Your task to perform on an android device: Show me popular games on the Play Store Image 0: 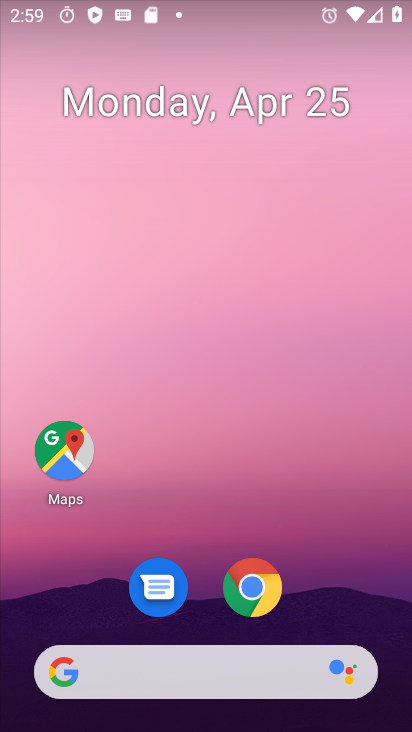
Step 0: drag from (334, 541) to (299, 189)
Your task to perform on an android device: Show me popular games on the Play Store Image 1: 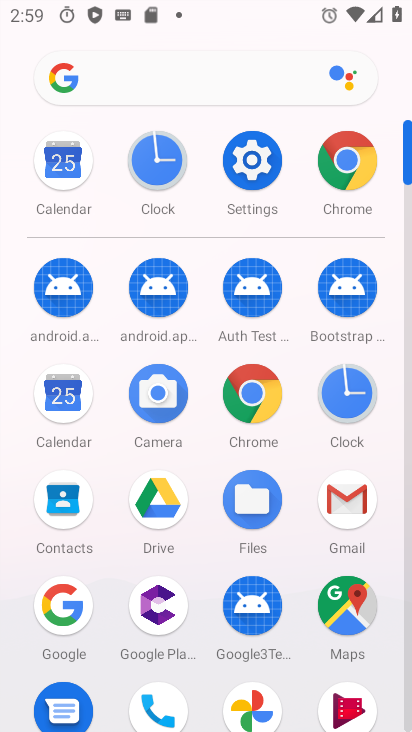
Step 1: click (304, 209)
Your task to perform on an android device: Show me popular games on the Play Store Image 2: 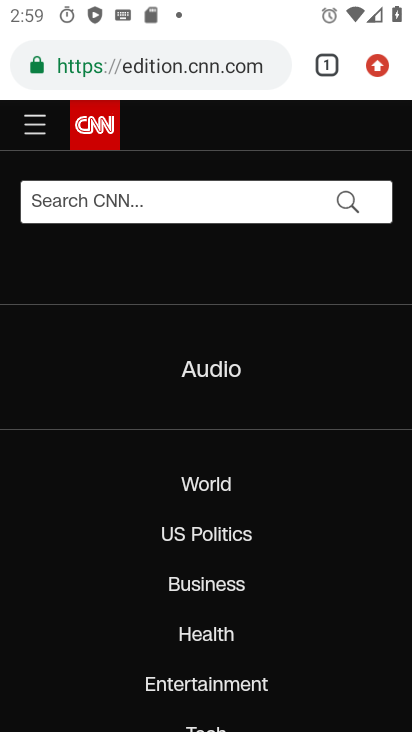
Step 2: press home button
Your task to perform on an android device: Show me popular games on the Play Store Image 3: 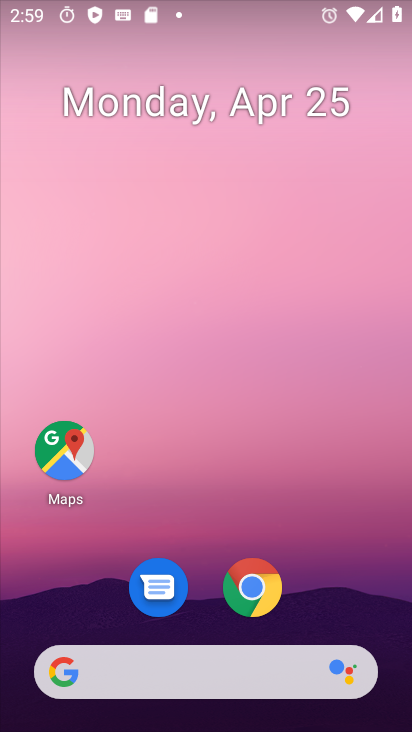
Step 3: drag from (354, 443) to (326, 51)
Your task to perform on an android device: Show me popular games on the Play Store Image 4: 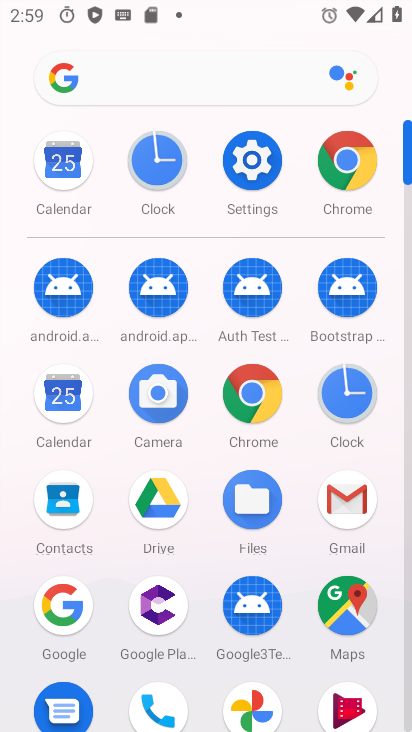
Step 4: drag from (302, 531) to (328, 113)
Your task to perform on an android device: Show me popular games on the Play Store Image 5: 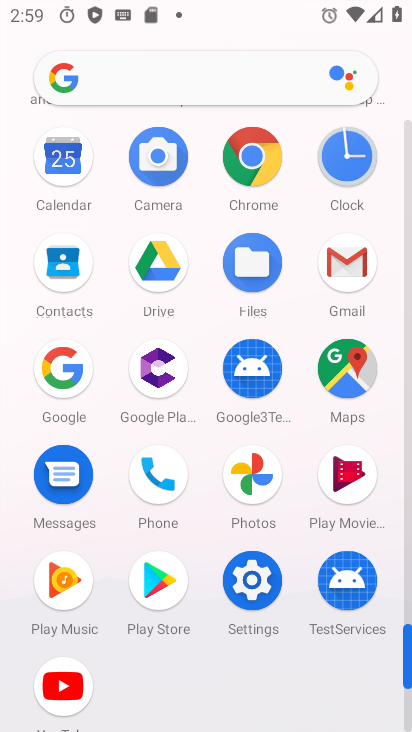
Step 5: click (158, 587)
Your task to perform on an android device: Show me popular games on the Play Store Image 6: 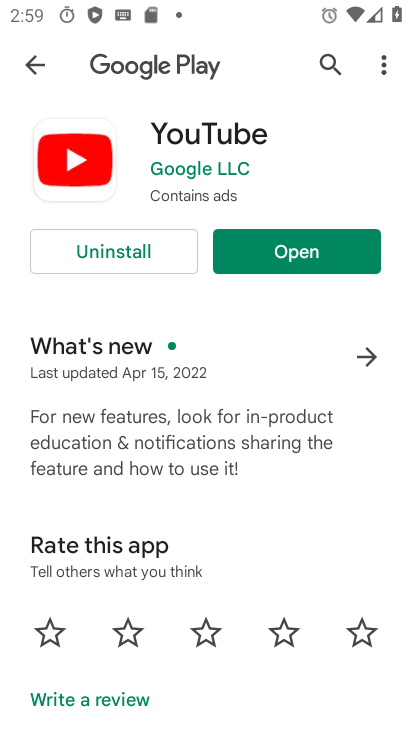
Step 6: click (42, 59)
Your task to perform on an android device: Show me popular games on the Play Store Image 7: 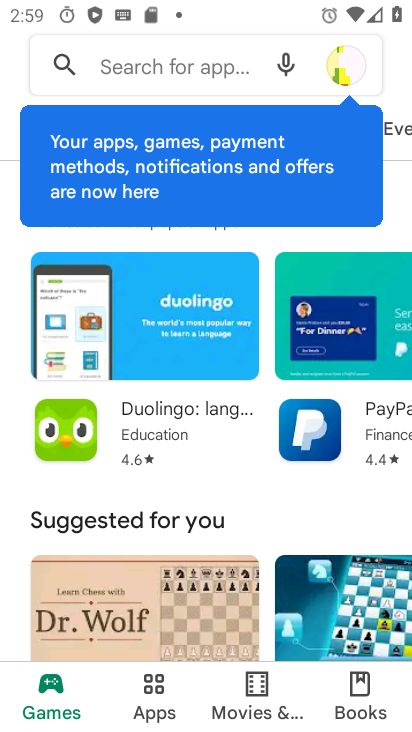
Step 7: click (391, 190)
Your task to perform on an android device: Show me popular games on the Play Store Image 8: 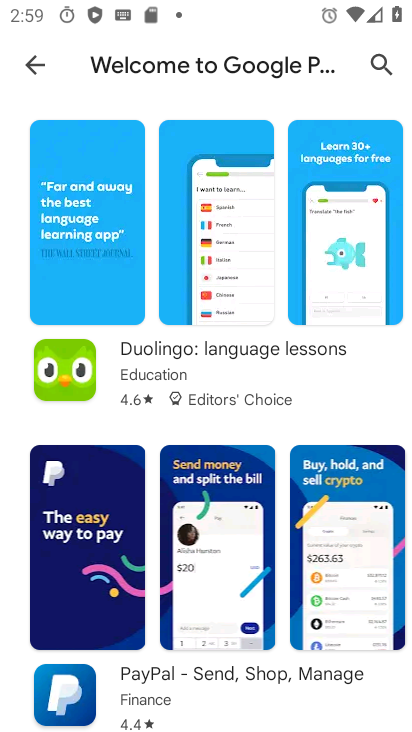
Step 8: drag from (37, 55) to (246, 45)
Your task to perform on an android device: Show me popular games on the Play Store Image 9: 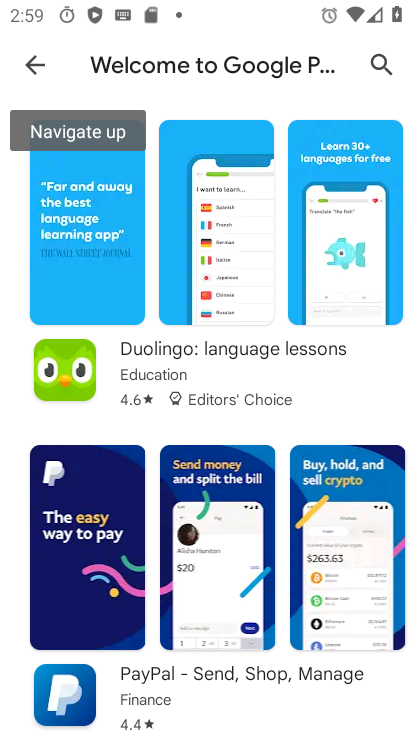
Step 9: click (31, 72)
Your task to perform on an android device: Show me popular games on the Play Store Image 10: 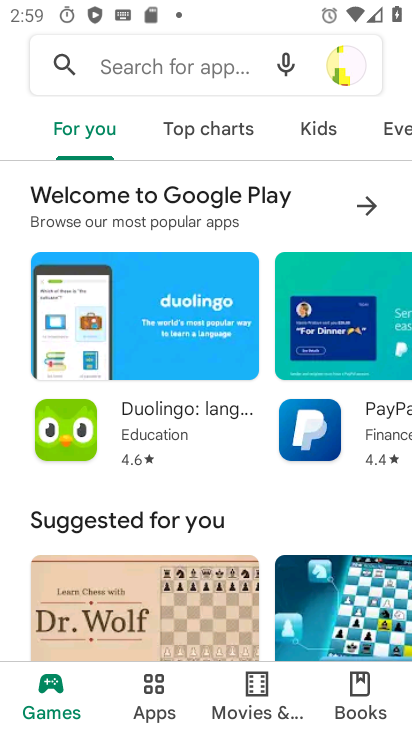
Step 10: click (207, 130)
Your task to perform on an android device: Show me popular games on the Play Store Image 11: 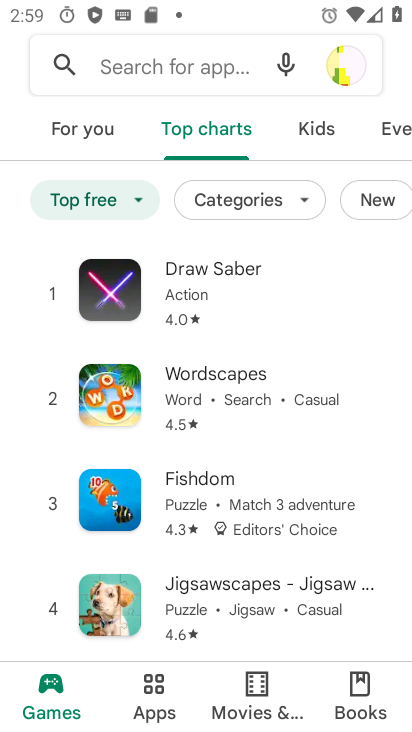
Step 11: task complete